Your task to perform on an android device: add a contact in the contacts app Image 0: 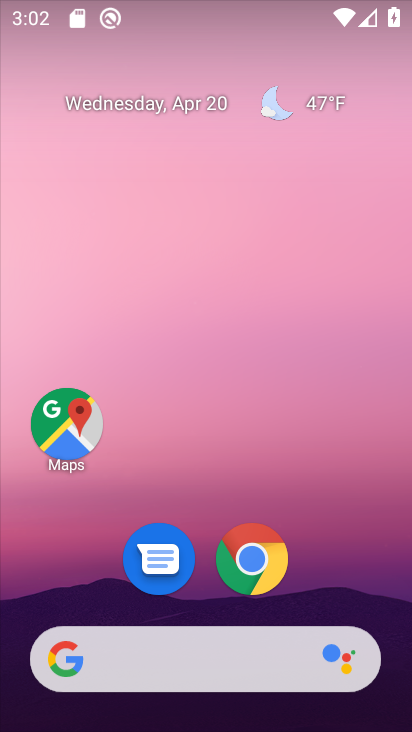
Step 0: drag from (117, 567) to (329, 58)
Your task to perform on an android device: add a contact in the contacts app Image 1: 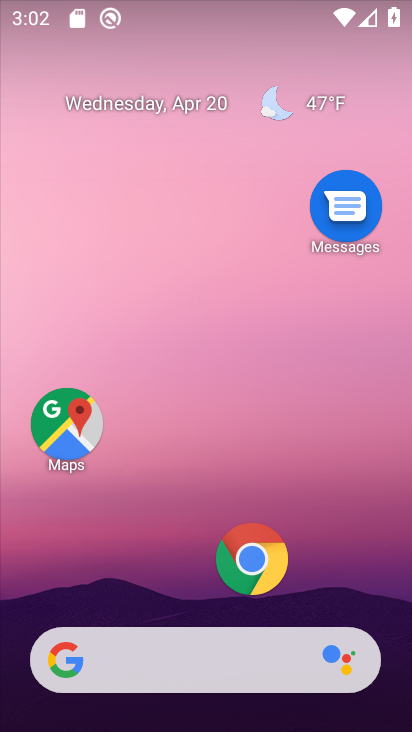
Step 1: drag from (114, 517) to (242, 78)
Your task to perform on an android device: add a contact in the contacts app Image 2: 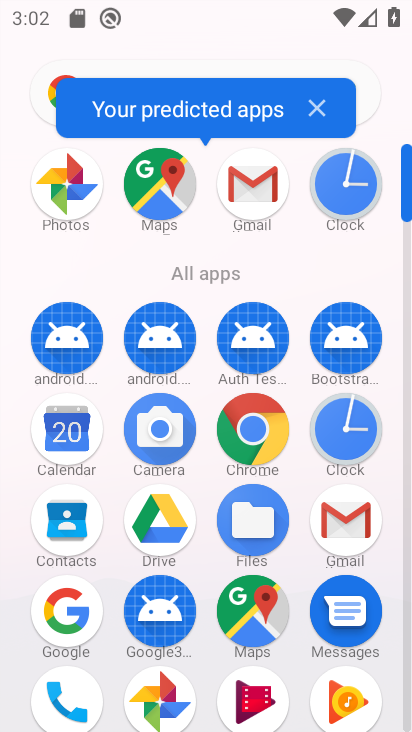
Step 2: click (42, 544)
Your task to perform on an android device: add a contact in the contacts app Image 3: 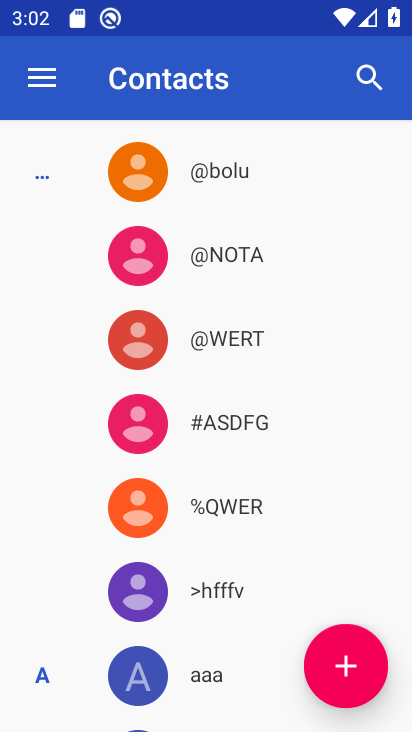
Step 3: click (364, 674)
Your task to perform on an android device: add a contact in the contacts app Image 4: 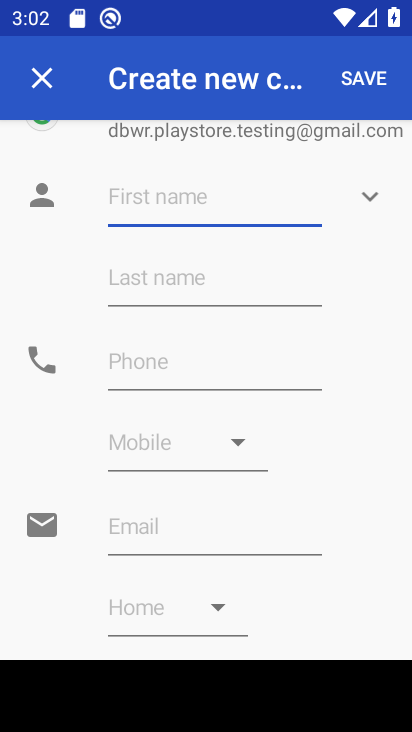
Step 4: type "rumi"
Your task to perform on an android device: add a contact in the contacts app Image 5: 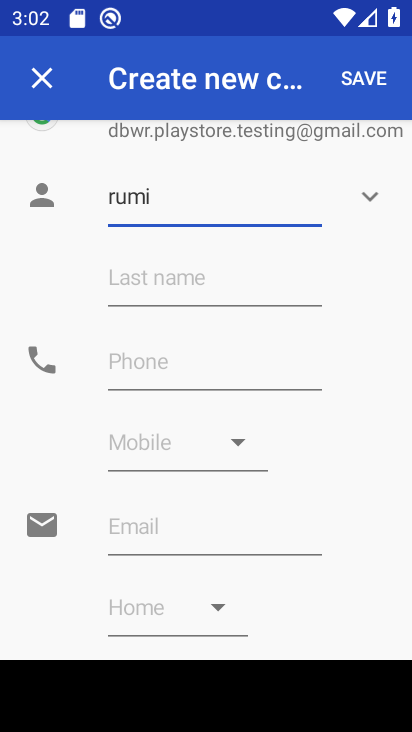
Step 5: click (190, 376)
Your task to perform on an android device: add a contact in the contacts app Image 6: 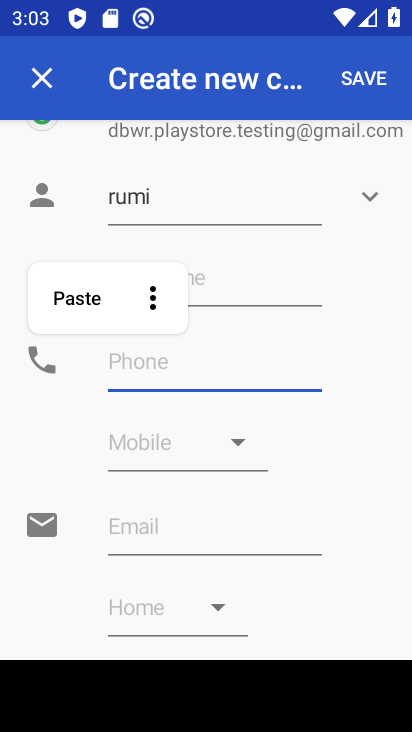
Step 6: type "23232121"
Your task to perform on an android device: add a contact in the contacts app Image 7: 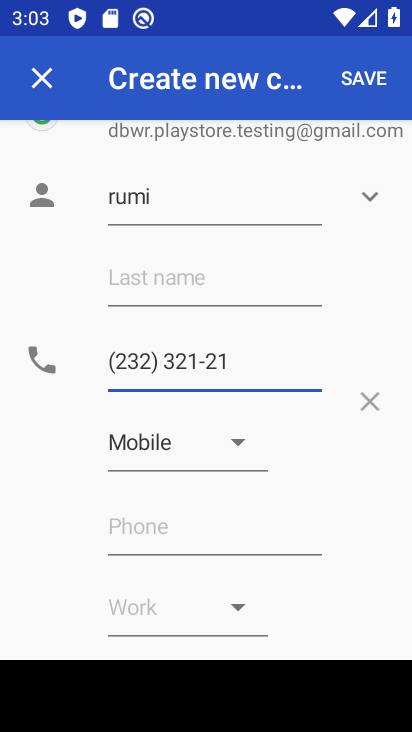
Step 7: type "2"
Your task to perform on an android device: add a contact in the contacts app Image 8: 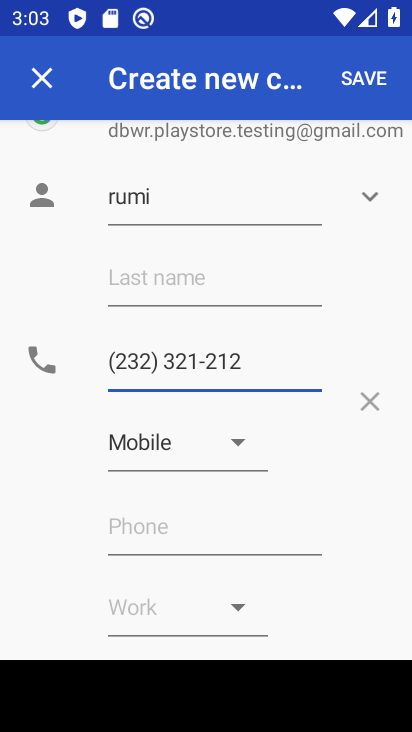
Step 8: click (360, 96)
Your task to perform on an android device: add a contact in the contacts app Image 9: 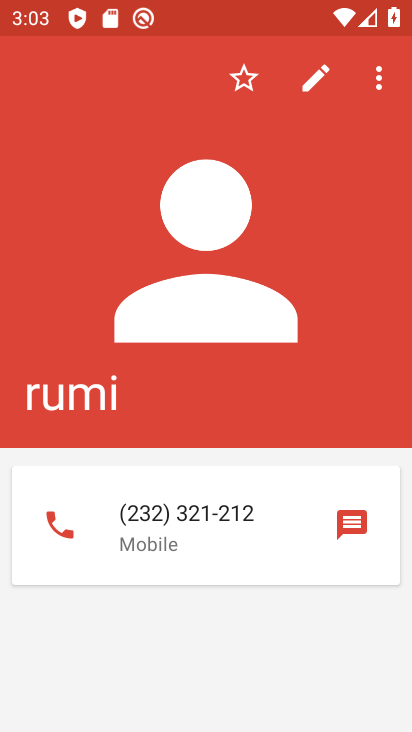
Step 9: task complete